Your task to perform on an android device: make emails show in primary in the gmail app Image 0: 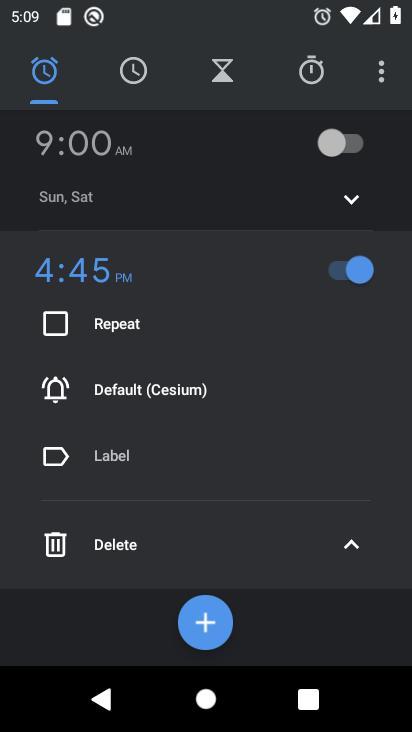
Step 0: press home button
Your task to perform on an android device: make emails show in primary in the gmail app Image 1: 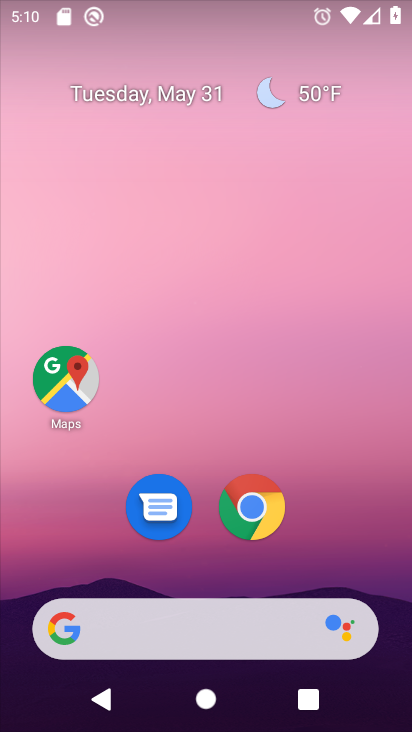
Step 1: drag from (310, 499) to (214, 44)
Your task to perform on an android device: make emails show in primary in the gmail app Image 2: 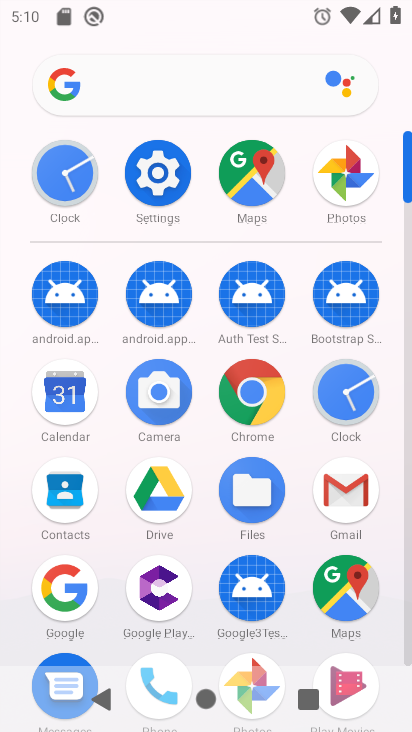
Step 2: click (324, 479)
Your task to perform on an android device: make emails show in primary in the gmail app Image 3: 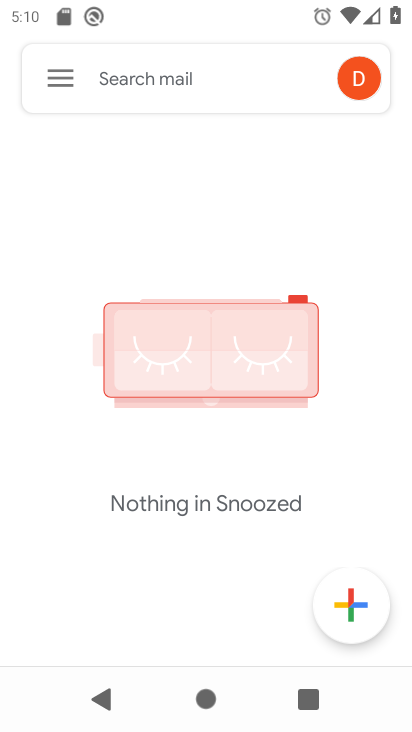
Step 3: click (65, 75)
Your task to perform on an android device: make emails show in primary in the gmail app Image 4: 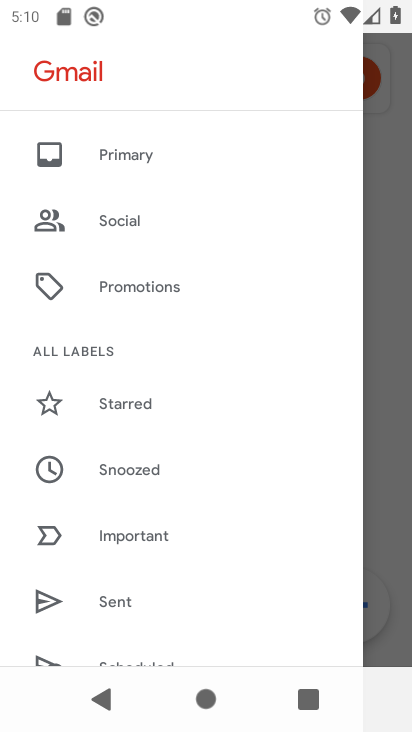
Step 4: drag from (188, 535) to (197, 169)
Your task to perform on an android device: make emails show in primary in the gmail app Image 5: 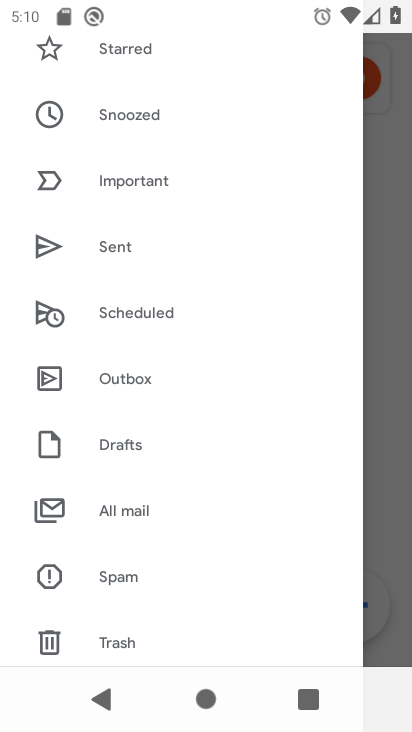
Step 5: drag from (192, 510) to (180, 76)
Your task to perform on an android device: make emails show in primary in the gmail app Image 6: 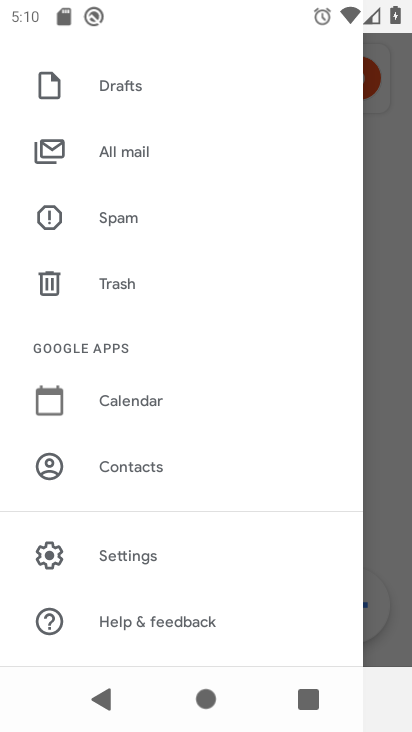
Step 6: click (143, 553)
Your task to perform on an android device: make emails show in primary in the gmail app Image 7: 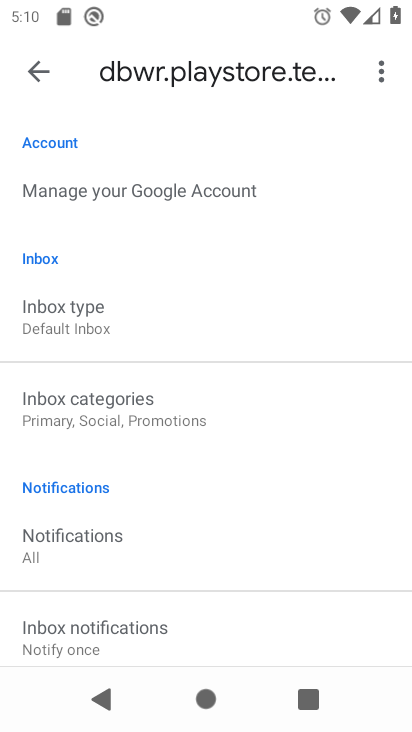
Step 7: click (126, 406)
Your task to perform on an android device: make emails show in primary in the gmail app Image 8: 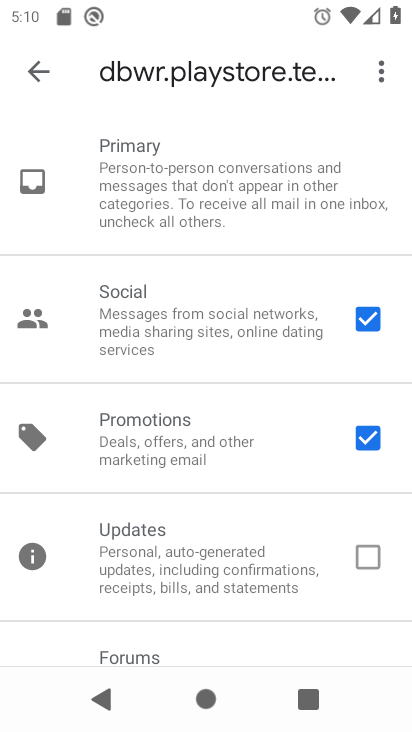
Step 8: click (370, 434)
Your task to perform on an android device: make emails show in primary in the gmail app Image 9: 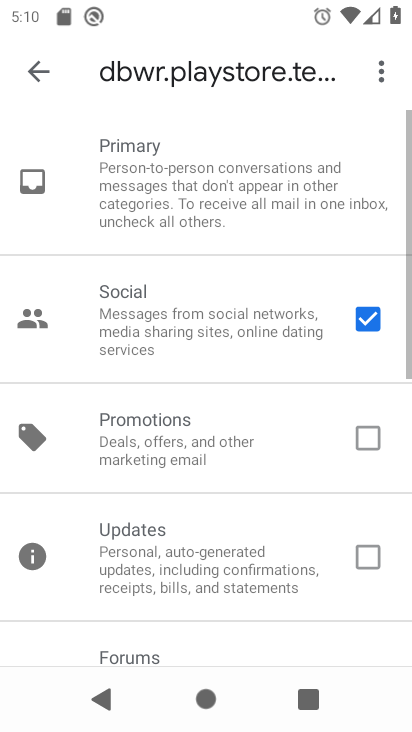
Step 9: click (363, 310)
Your task to perform on an android device: make emails show in primary in the gmail app Image 10: 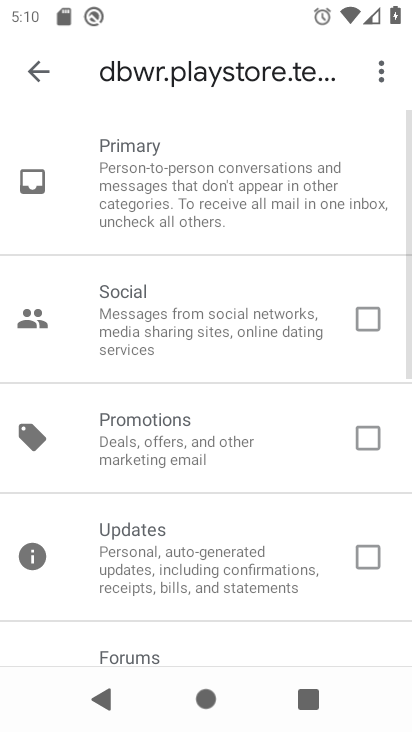
Step 10: click (43, 61)
Your task to perform on an android device: make emails show in primary in the gmail app Image 11: 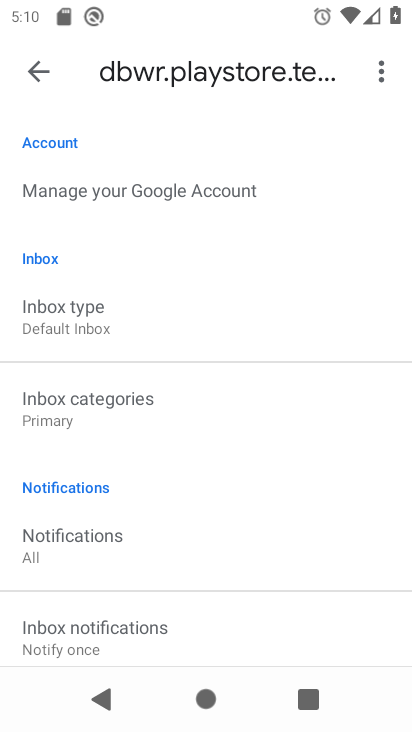
Step 11: task complete